Your task to perform on an android device: toggle translation in the chrome app Image 0: 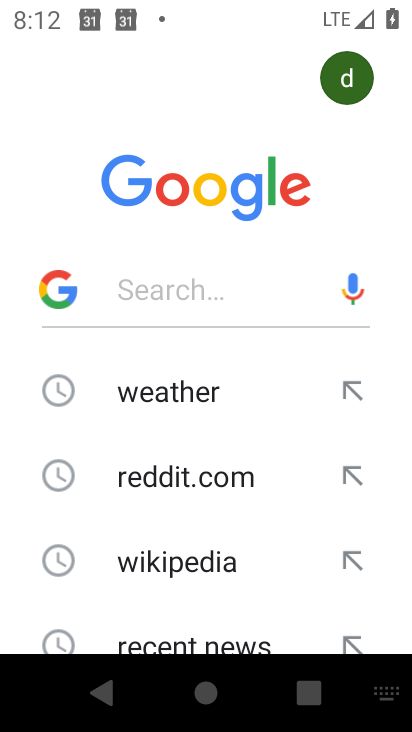
Step 0: press home button
Your task to perform on an android device: toggle translation in the chrome app Image 1: 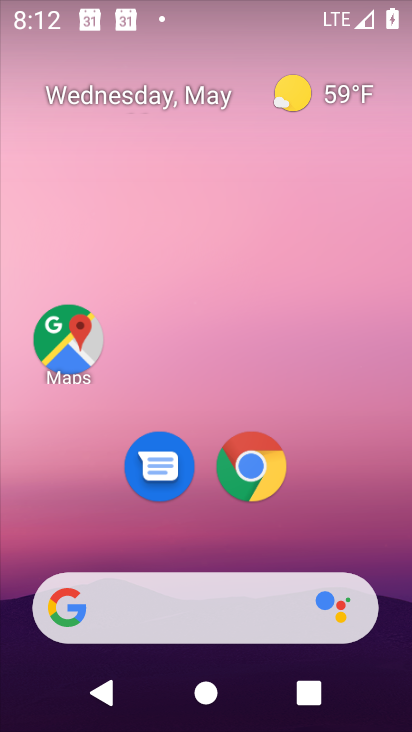
Step 1: drag from (318, 476) to (337, 179)
Your task to perform on an android device: toggle translation in the chrome app Image 2: 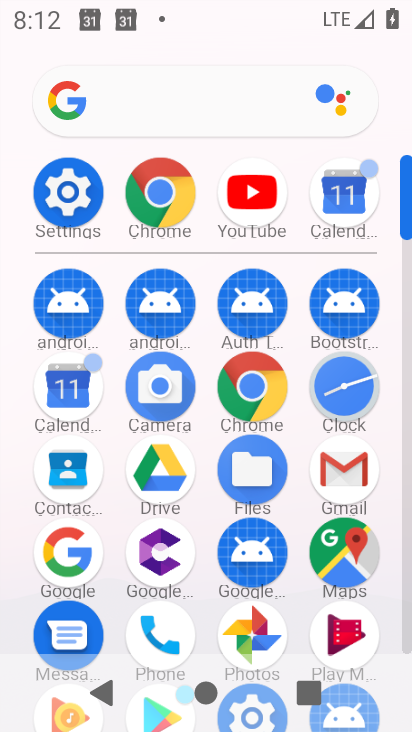
Step 2: click (150, 197)
Your task to perform on an android device: toggle translation in the chrome app Image 3: 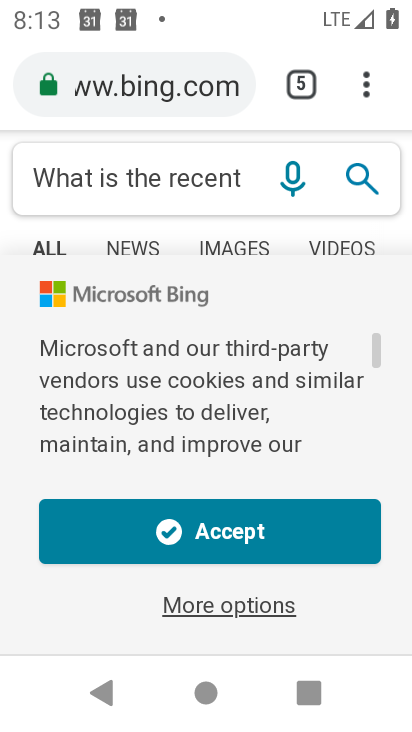
Step 3: click (352, 79)
Your task to perform on an android device: toggle translation in the chrome app Image 4: 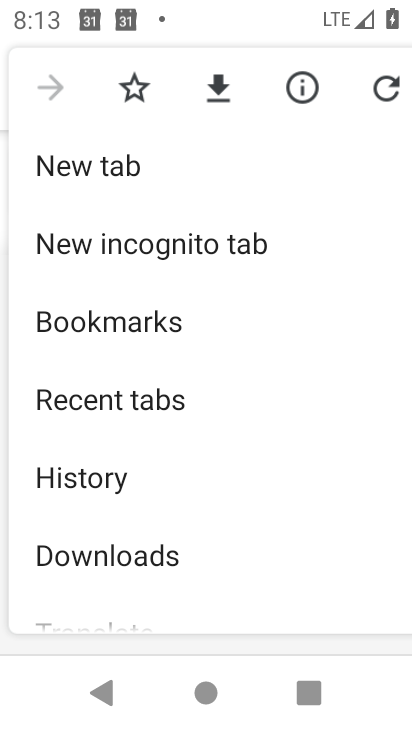
Step 4: drag from (199, 568) to (229, 94)
Your task to perform on an android device: toggle translation in the chrome app Image 5: 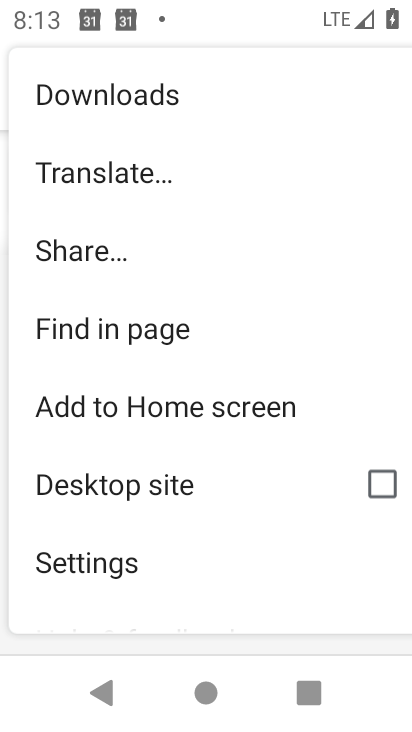
Step 5: click (100, 564)
Your task to perform on an android device: toggle translation in the chrome app Image 6: 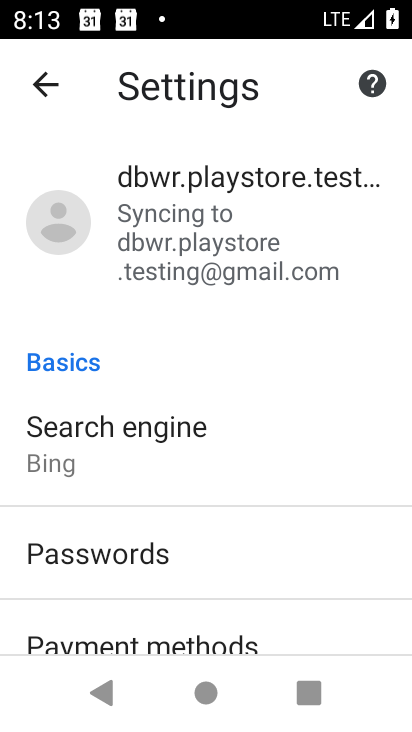
Step 6: drag from (220, 632) to (247, 158)
Your task to perform on an android device: toggle translation in the chrome app Image 7: 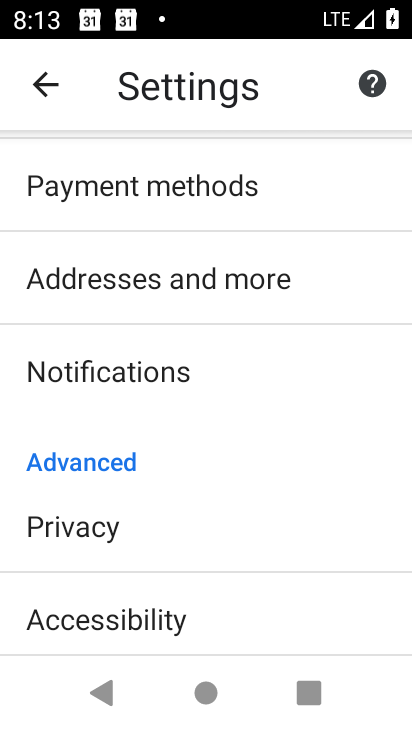
Step 7: drag from (116, 601) to (231, 178)
Your task to perform on an android device: toggle translation in the chrome app Image 8: 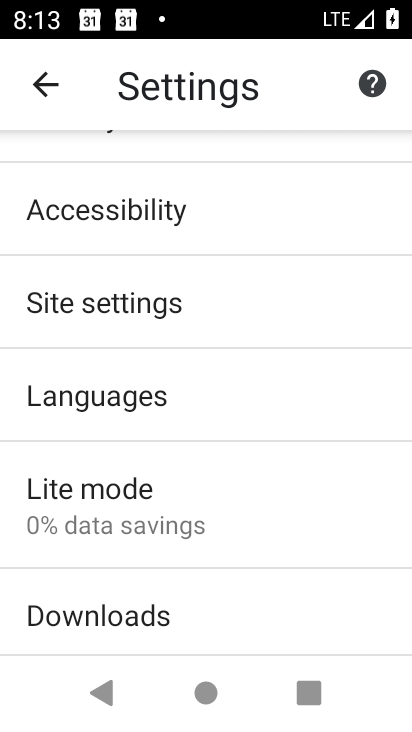
Step 8: click (117, 401)
Your task to perform on an android device: toggle translation in the chrome app Image 9: 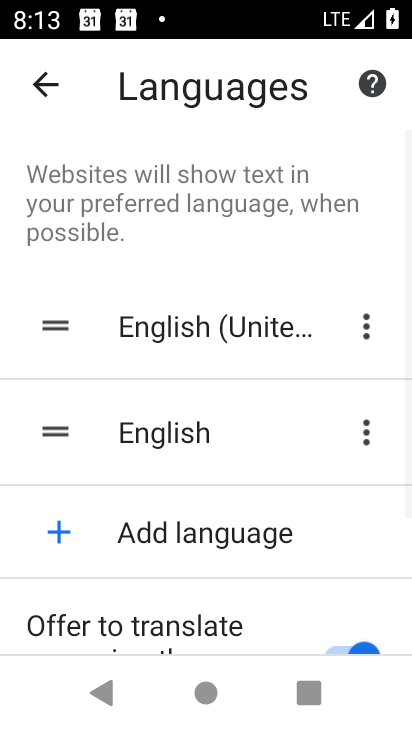
Step 9: click (345, 642)
Your task to perform on an android device: toggle translation in the chrome app Image 10: 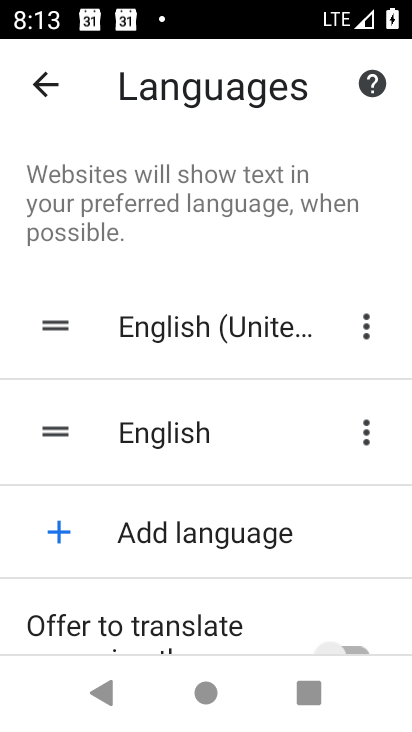
Step 10: task complete